Your task to perform on an android device: Do I have any events this weekend? Image 0: 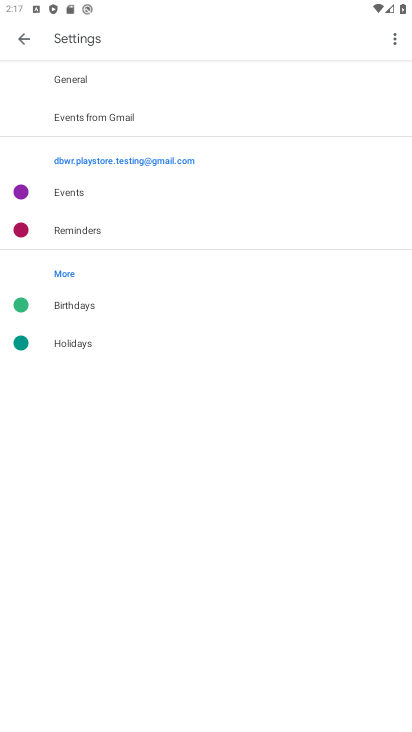
Step 0: press home button
Your task to perform on an android device: Do I have any events this weekend? Image 1: 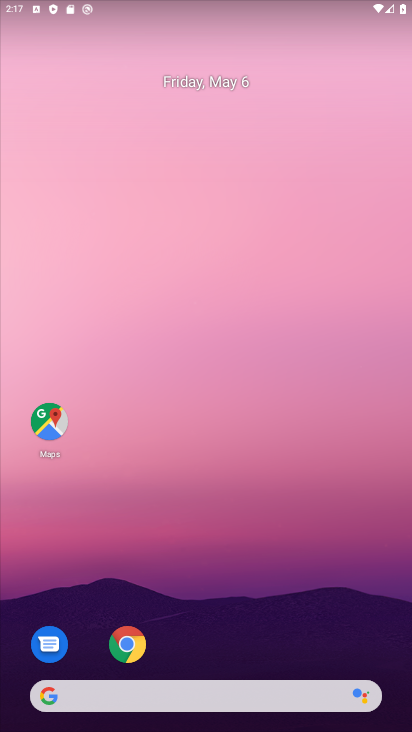
Step 1: drag from (229, 717) to (288, 286)
Your task to perform on an android device: Do I have any events this weekend? Image 2: 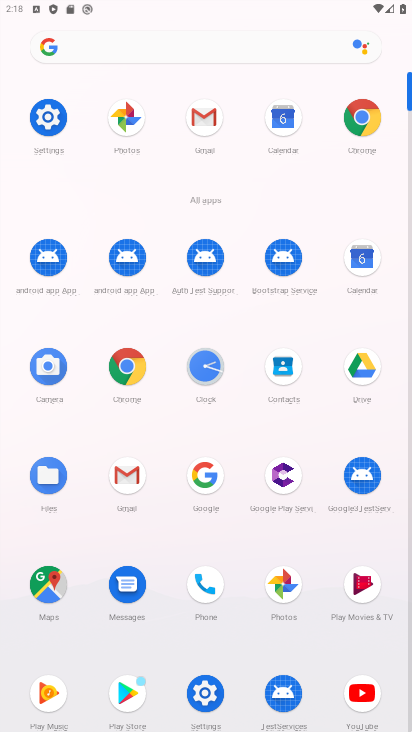
Step 2: click (368, 275)
Your task to perform on an android device: Do I have any events this weekend? Image 3: 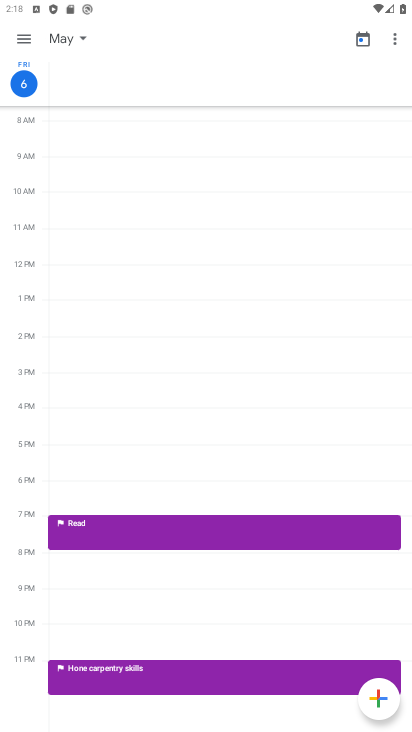
Step 3: drag from (290, 546) to (297, 35)
Your task to perform on an android device: Do I have any events this weekend? Image 4: 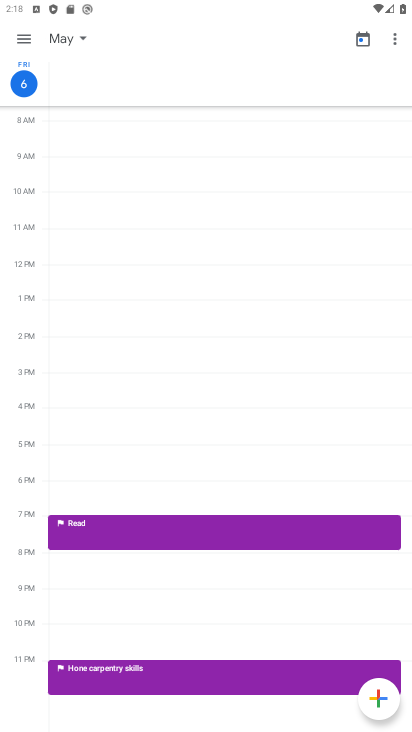
Step 4: drag from (276, 444) to (265, 11)
Your task to perform on an android device: Do I have any events this weekend? Image 5: 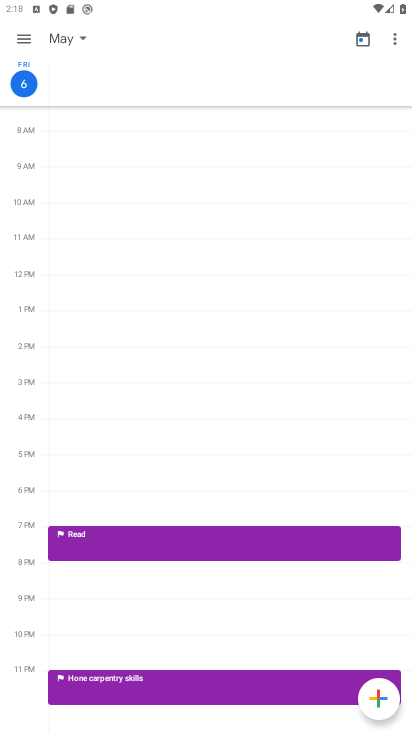
Step 5: click (297, 623)
Your task to perform on an android device: Do I have any events this weekend? Image 6: 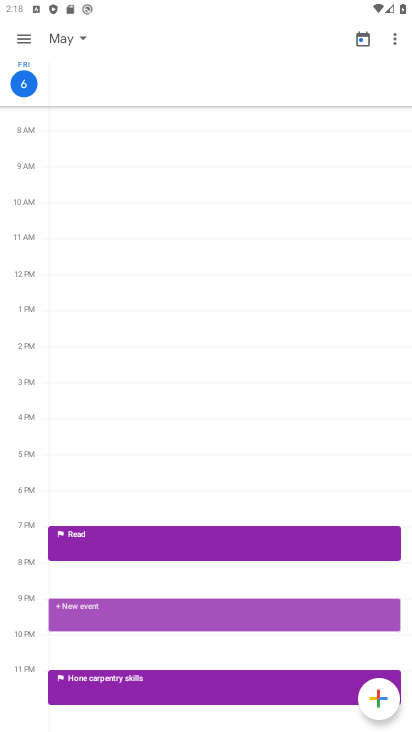
Step 6: drag from (289, 596) to (287, 87)
Your task to perform on an android device: Do I have any events this weekend? Image 7: 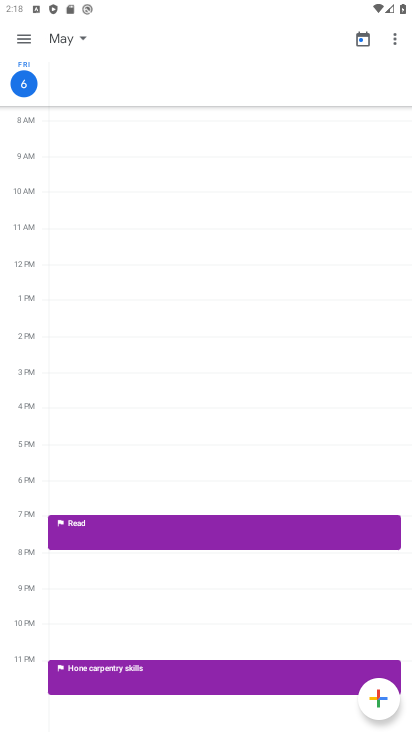
Step 7: click (31, 87)
Your task to perform on an android device: Do I have any events this weekend? Image 8: 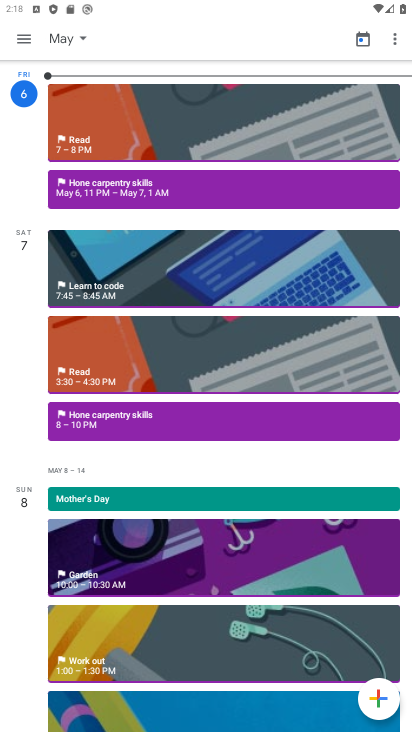
Step 8: task complete